Your task to perform on an android device: Go to battery settings Image 0: 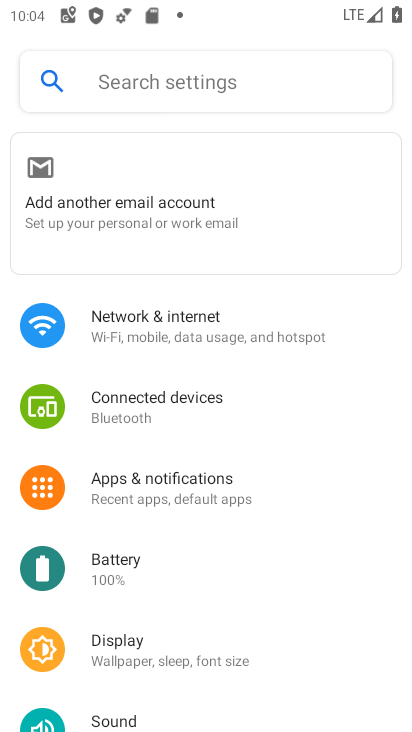
Step 0: press home button
Your task to perform on an android device: Go to battery settings Image 1: 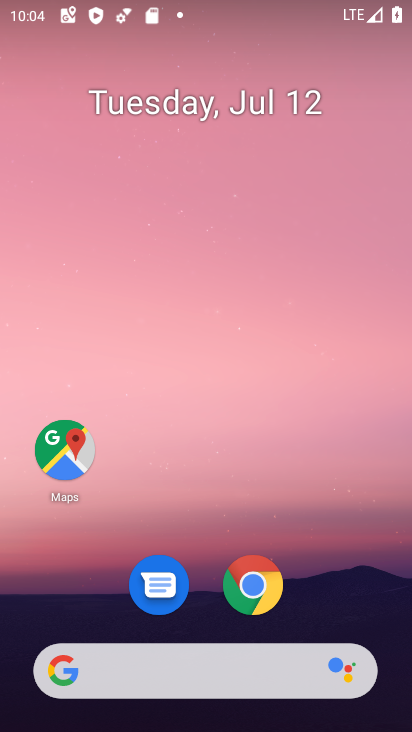
Step 1: drag from (193, 672) to (268, 25)
Your task to perform on an android device: Go to battery settings Image 2: 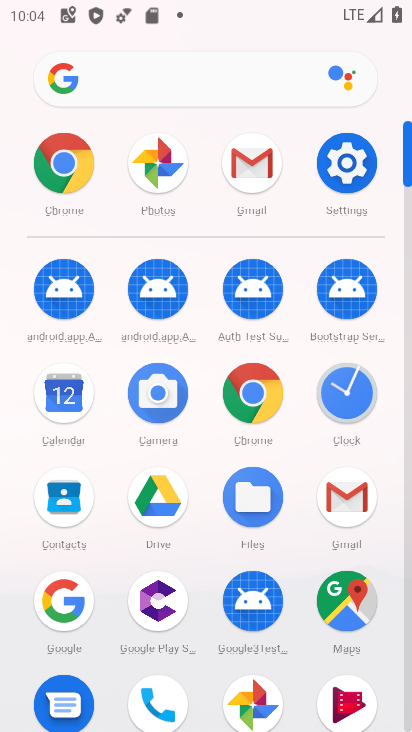
Step 2: click (337, 165)
Your task to perform on an android device: Go to battery settings Image 3: 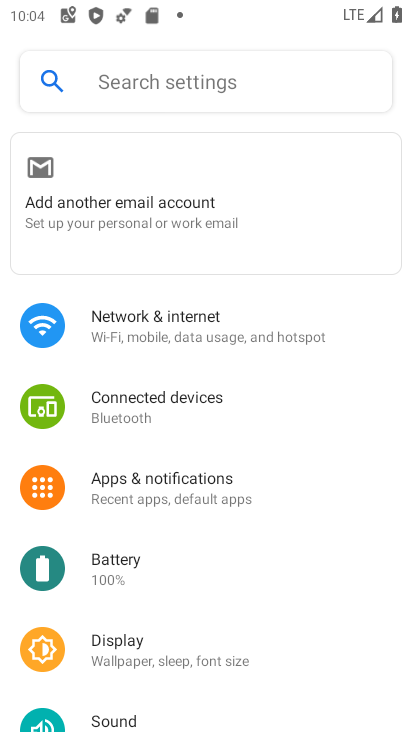
Step 3: click (119, 559)
Your task to perform on an android device: Go to battery settings Image 4: 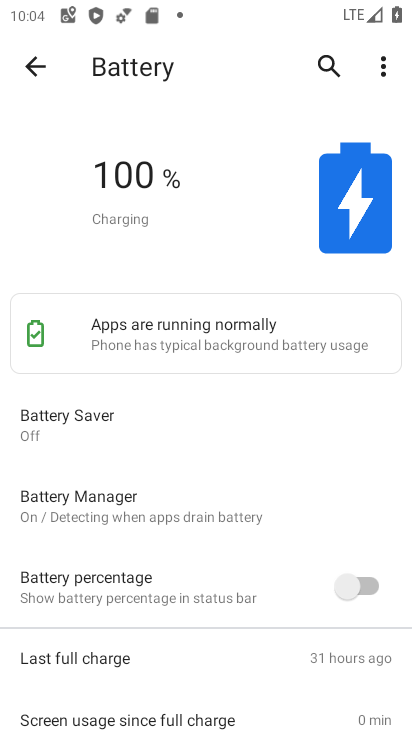
Step 4: task complete